Your task to perform on an android device: Is it going to rain this weekend? Image 0: 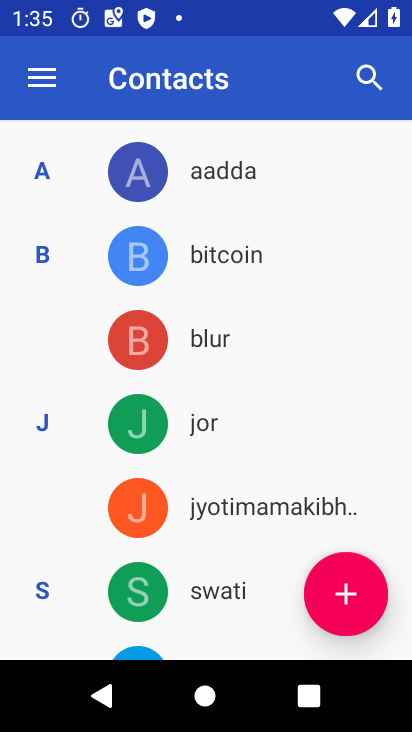
Step 0: press home button
Your task to perform on an android device: Is it going to rain this weekend? Image 1: 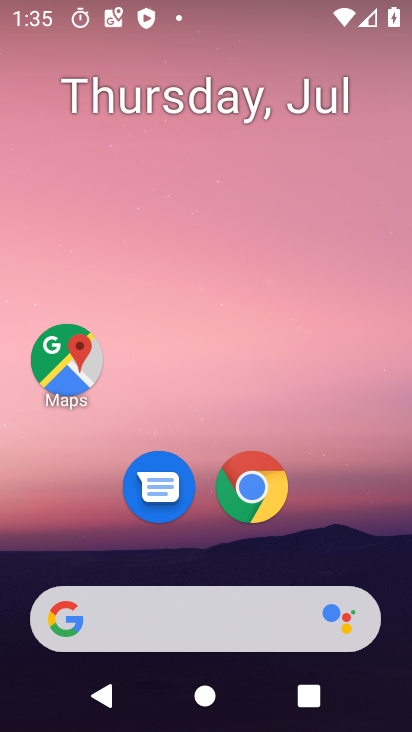
Step 1: drag from (192, 611) to (270, 172)
Your task to perform on an android device: Is it going to rain this weekend? Image 2: 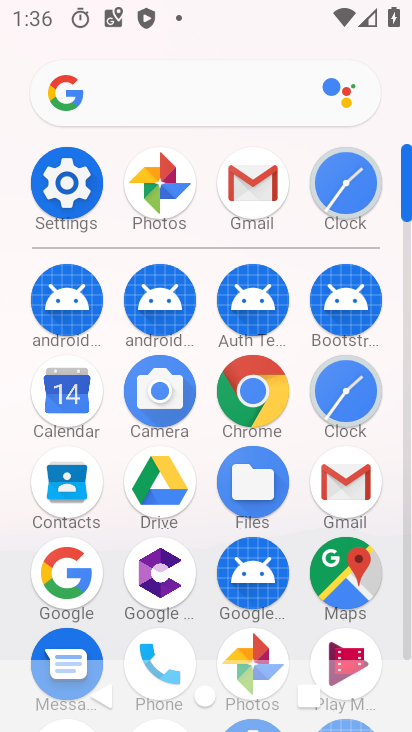
Step 2: click (67, 597)
Your task to perform on an android device: Is it going to rain this weekend? Image 3: 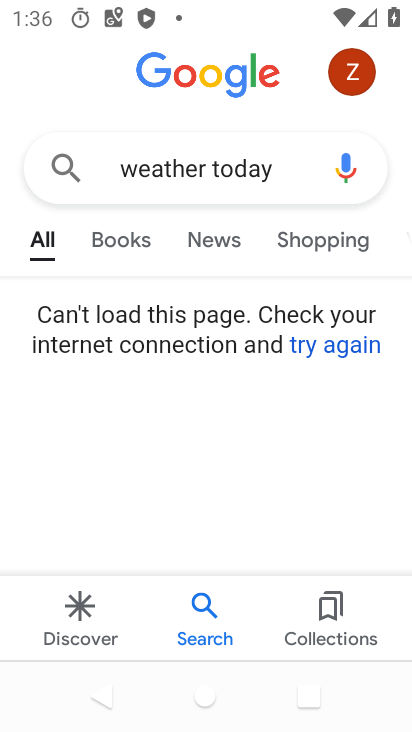
Step 3: click (275, 195)
Your task to perform on an android device: Is it going to rain this weekend? Image 4: 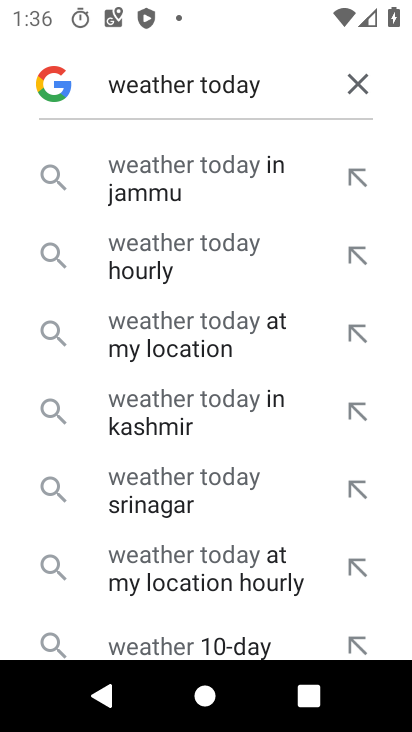
Step 4: click (357, 97)
Your task to perform on an android device: Is it going to rain this weekend? Image 5: 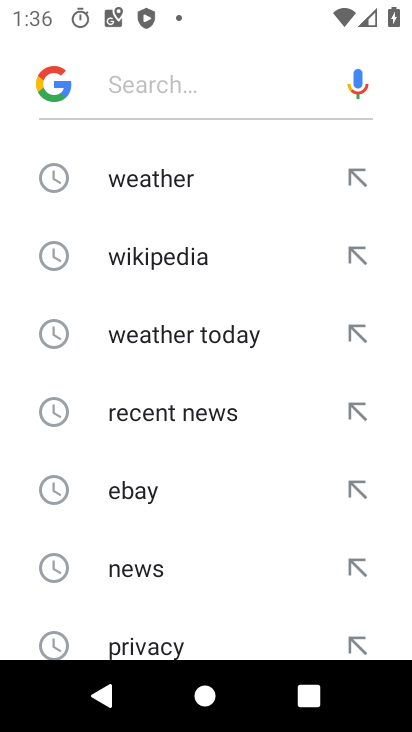
Step 5: click (217, 162)
Your task to perform on an android device: Is it going to rain this weekend? Image 6: 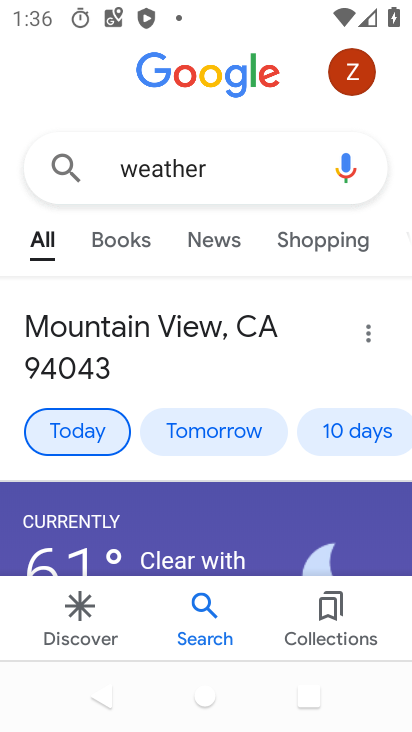
Step 6: click (361, 432)
Your task to perform on an android device: Is it going to rain this weekend? Image 7: 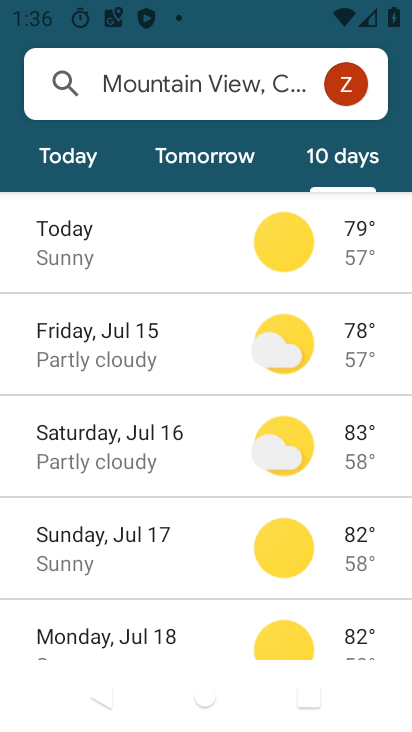
Step 7: task complete